Your task to perform on an android device: Open the calendar and show me this week's events? Image 0: 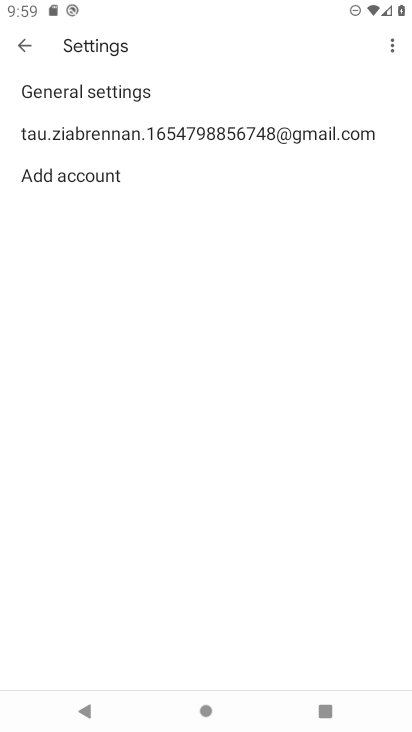
Step 0: click (178, 132)
Your task to perform on an android device: Open the calendar and show me this week's events? Image 1: 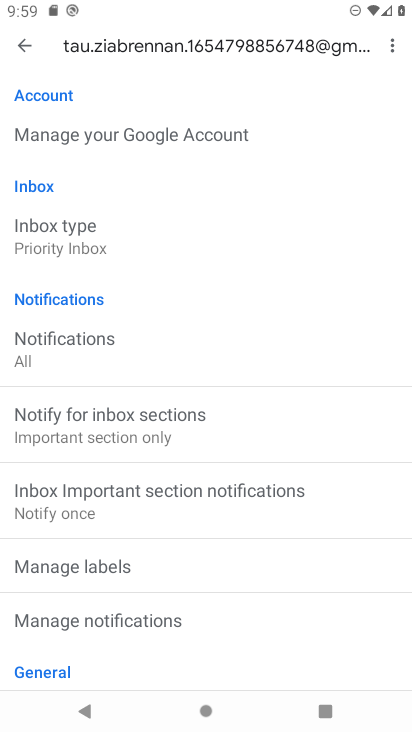
Step 1: press home button
Your task to perform on an android device: Open the calendar and show me this week's events? Image 2: 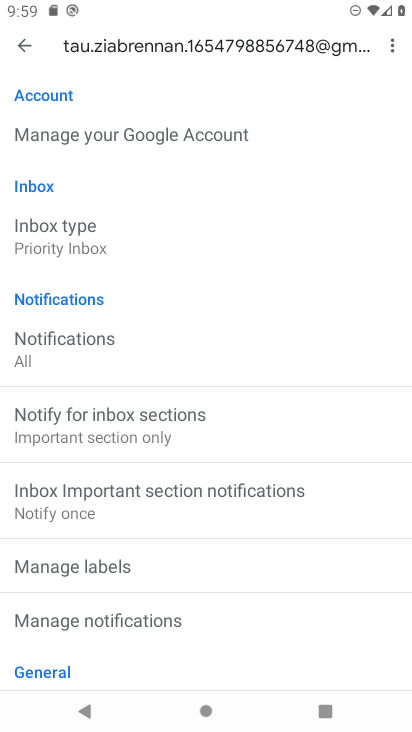
Step 2: press home button
Your task to perform on an android device: Open the calendar and show me this week's events? Image 3: 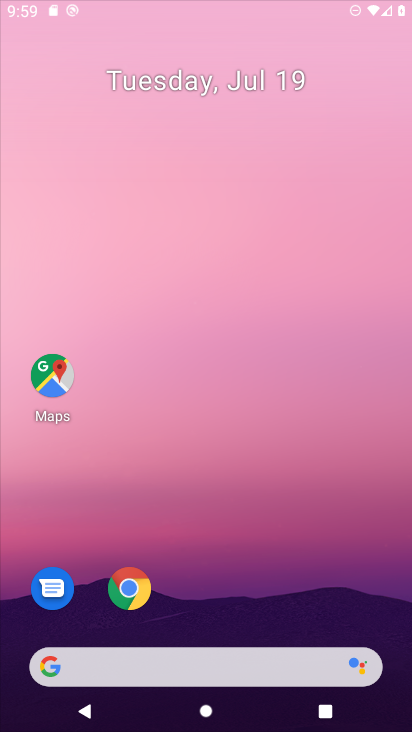
Step 3: press home button
Your task to perform on an android device: Open the calendar and show me this week's events? Image 4: 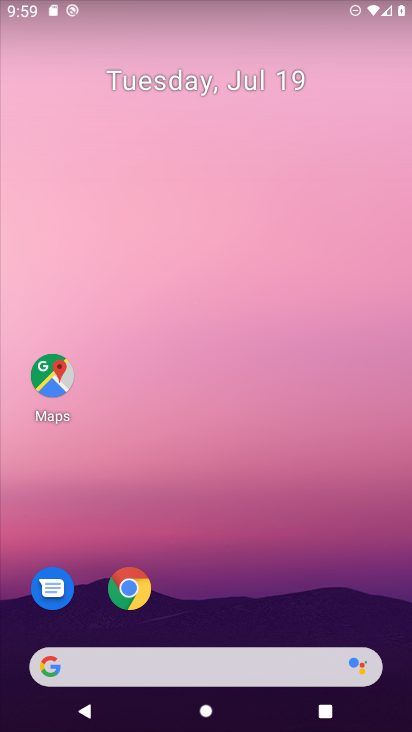
Step 4: drag from (240, 559) to (164, 60)
Your task to perform on an android device: Open the calendar and show me this week's events? Image 5: 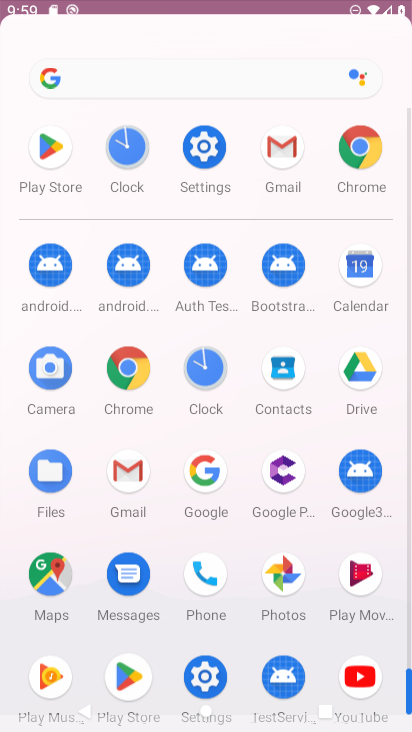
Step 5: drag from (215, 417) to (178, 127)
Your task to perform on an android device: Open the calendar and show me this week's events? Image 6: 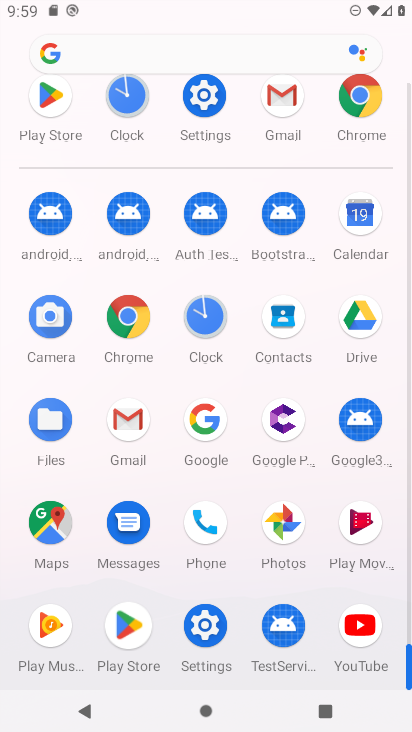
Step 6: click (345, 206)
Your task to perform on an android device: Open the calendar and show me this week's events? Image 7: 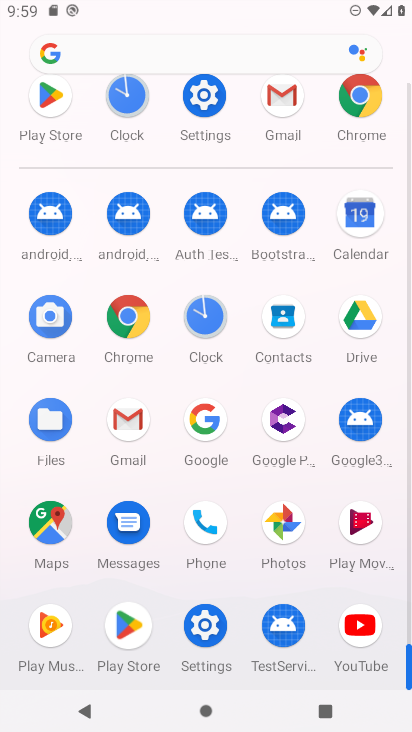
Step 7: click (361, 220)
Your task to perform on an android device: Open the calendar and show me this week's events? Image 8: 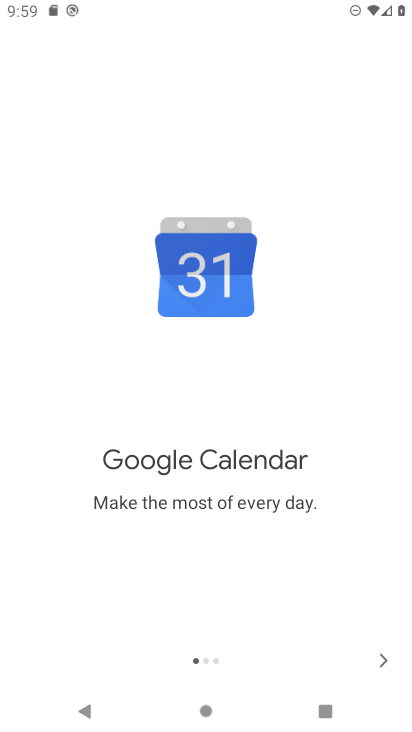
Step 8: click (382, 660)
Your task to perform on an android device: Open the calendar and show me this week's events? Image 9: 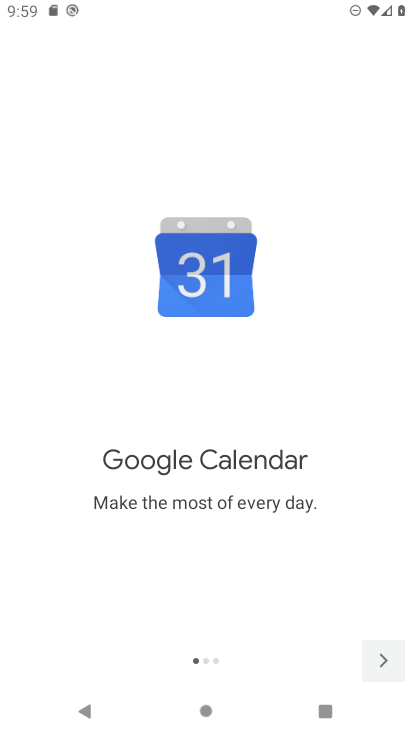
Step 9: click (380, 660)
Your task to perform on an android device: Open the calendar and show me this week's events? Image 10: 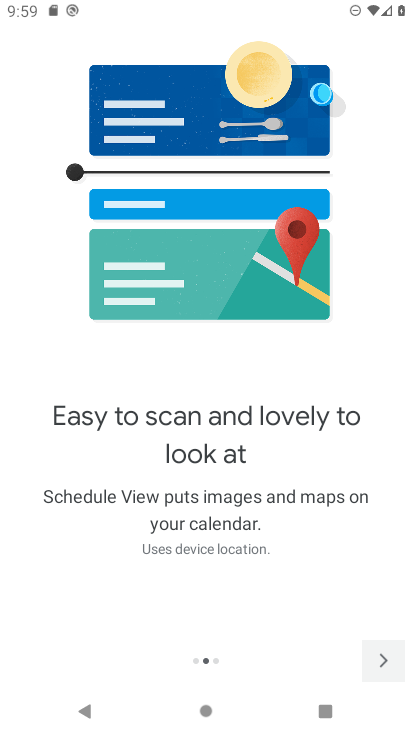
Step 10: click (380, 660)
Your task to perform on an android device: Open the calendar and show me this week's events? Image 11: 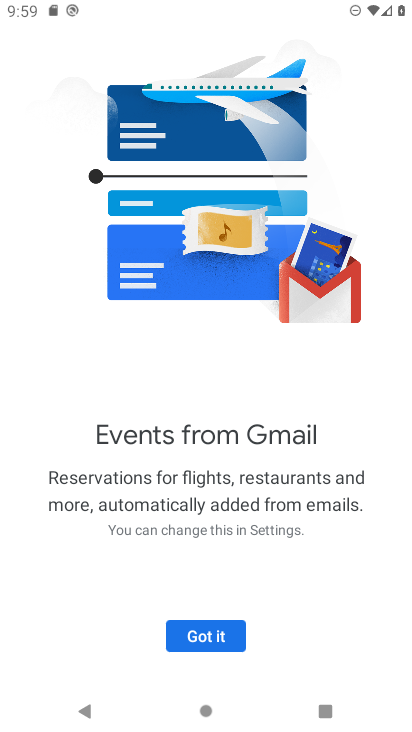
Step 11: click (379, 660)
Your task to perform on an android device: Open the calendar and show me this week's events? Image 12: 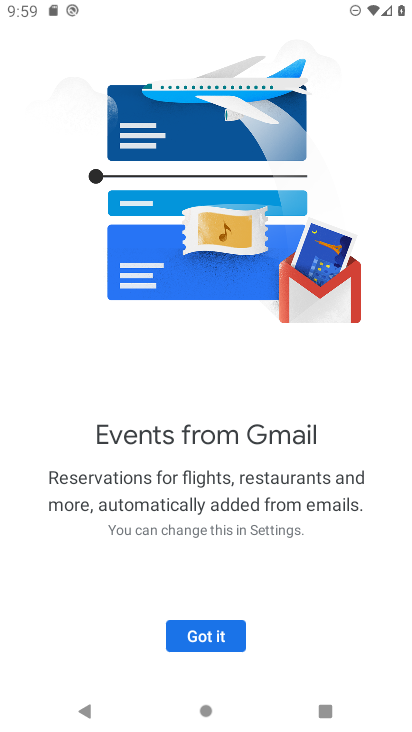
Step 12: click (219, 628)
Your task to perform on an android device: Open the calendar and show me this week's events? Image 13: 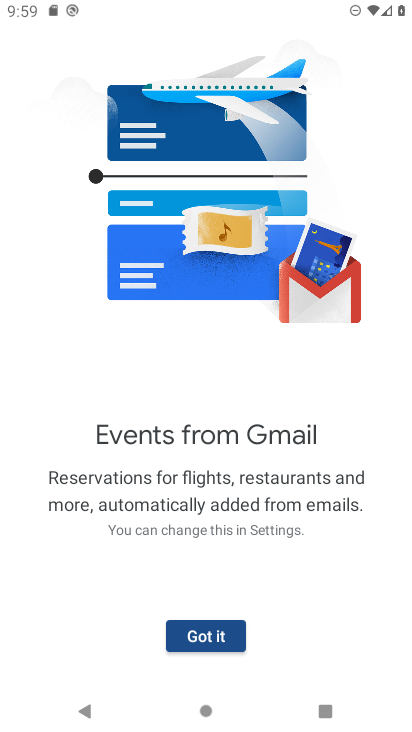
Step 13: click (217, 629)
Your task to perform on an android device: Open the calendar and show me this week's events? Image 14: 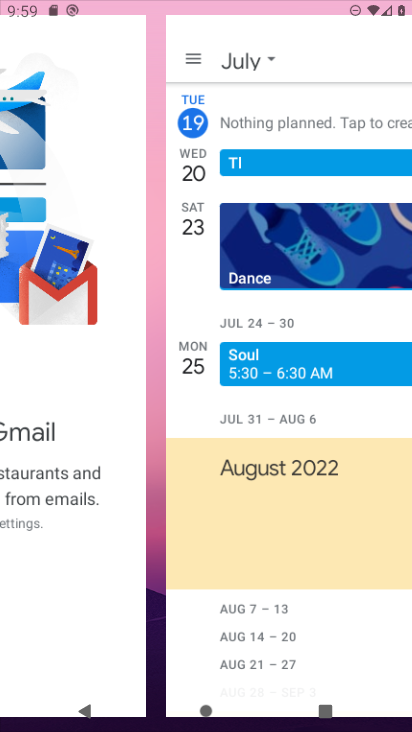
Step 14: click (219, 634)
Your task to perform on an android device: Open the calendar and show me this week's events? Image 15: 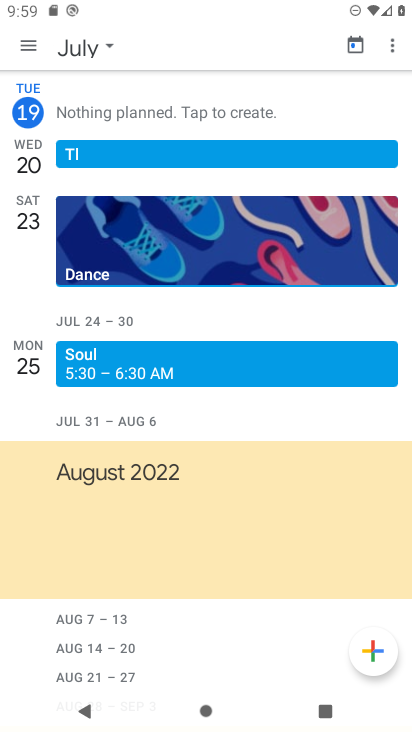
Step 15: click (219, 634)
Your task to perform on an android device: Open the calendar and show me this week's events? Image 16: 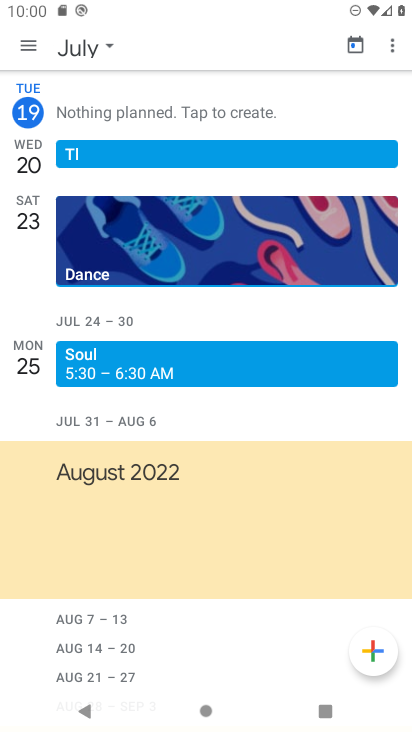
Step 16: click (113, 47)
Your task to perform on an android device: Open the calendar and show me this week's events? Image 17: 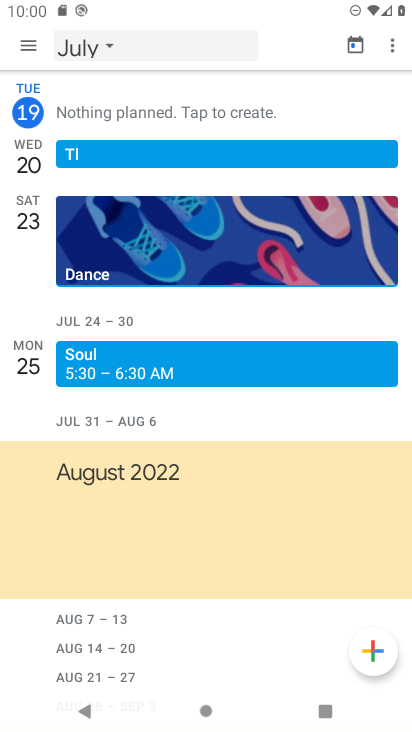
Step 17: click (111, 46)
Your task to perform on an android device: Open the calendar and show me this week's events? Image 18: 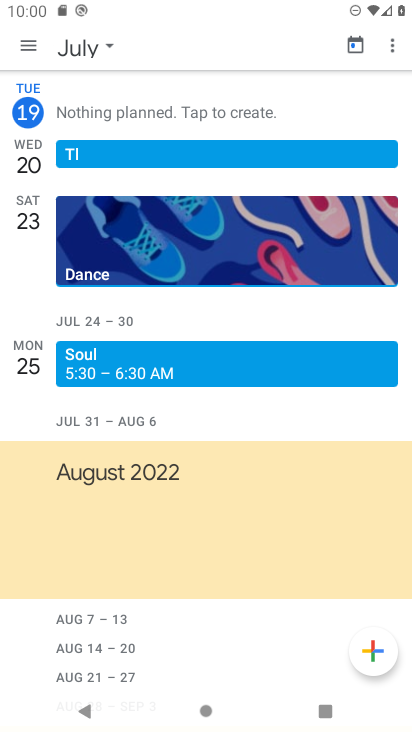
Step 18: click (102, 46)
Your task to perform on an android device: Open the calendar and show me this week's events? Image 19: 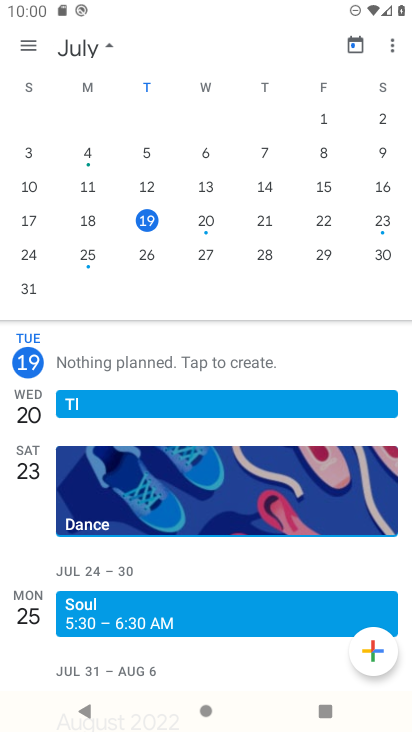
Step 19: click (205, 221)
Your task to perform on an android device: Open the calendar and show me this week's events? Image 20: 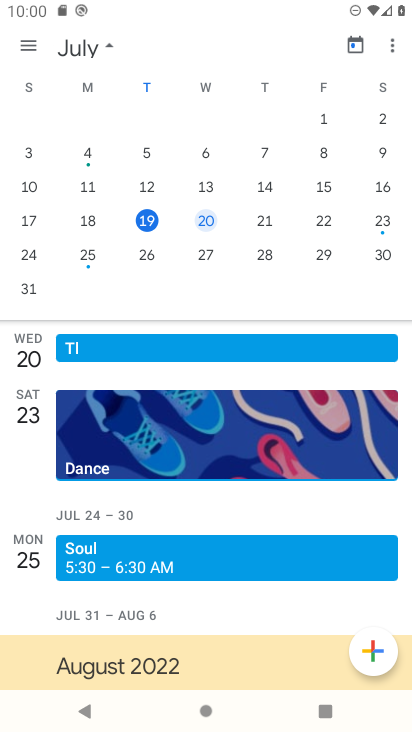
Step 20: task complete